Your task to perform on an android device: delete the emails in spam in the gmail app Image 0: 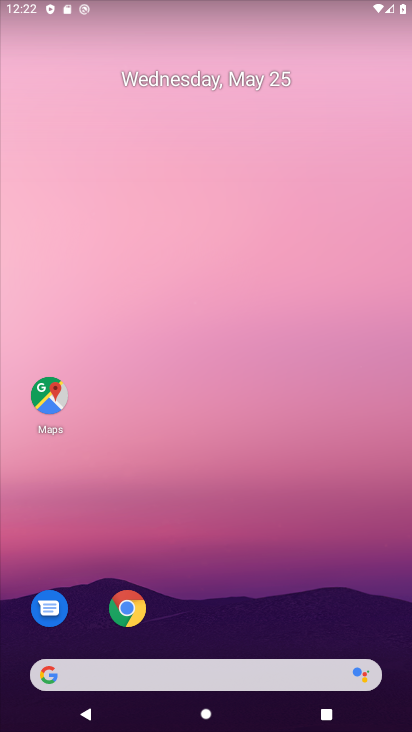
Step 0: drag from (239, 699) to (271, 49)
Your task to perform on an android device: delete the emails in spam in the gmail app Image 1: 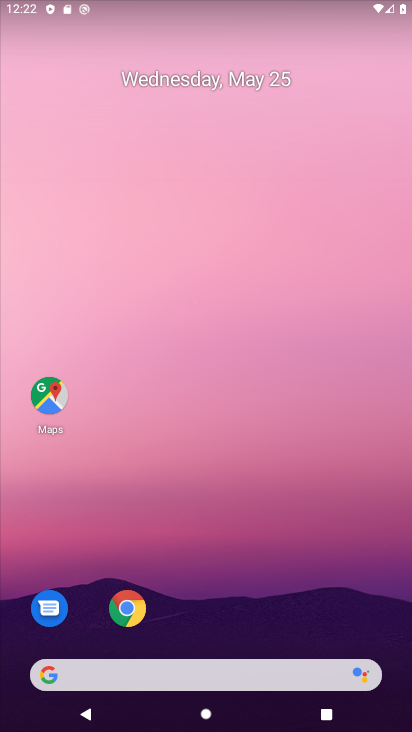
Step 1: drag from (264, 726) to (311, 90)
Your task to perform on an android device: delete the emails in spam in the gmail app Image 2: 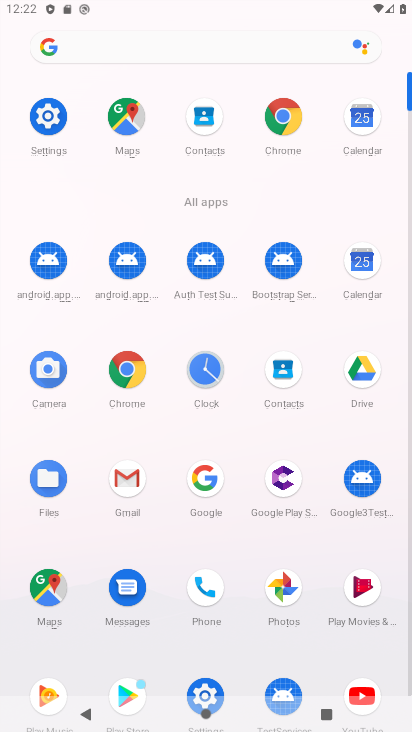
Step 2: click (121, 477)
Your task to perform on an android device: delete the emails in spam in the gmail app Image 3: 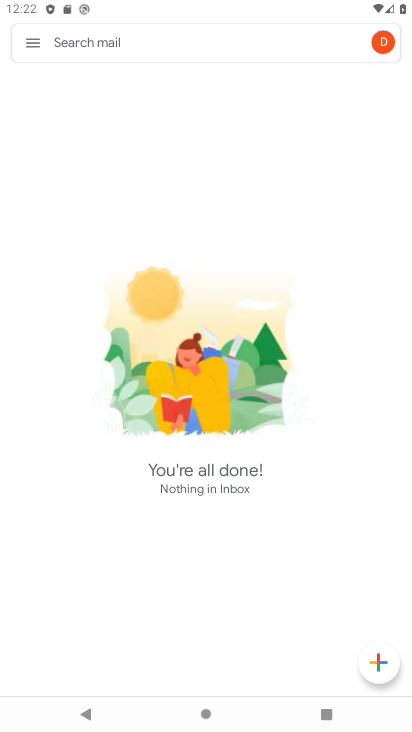
Step 3: click (33, 43)
Your task to perform on an android device: delete the emails in spam in the gmail app Image 4: 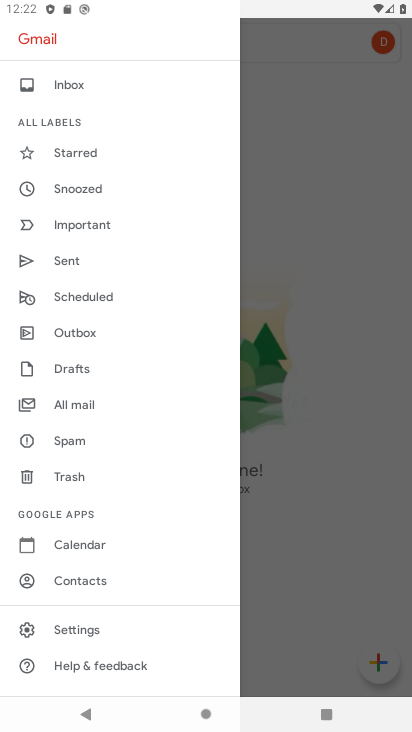
Step 4: click (79, 443)
Your task to perform on an android device: delete the emails in spam in the gmail app Image 5: 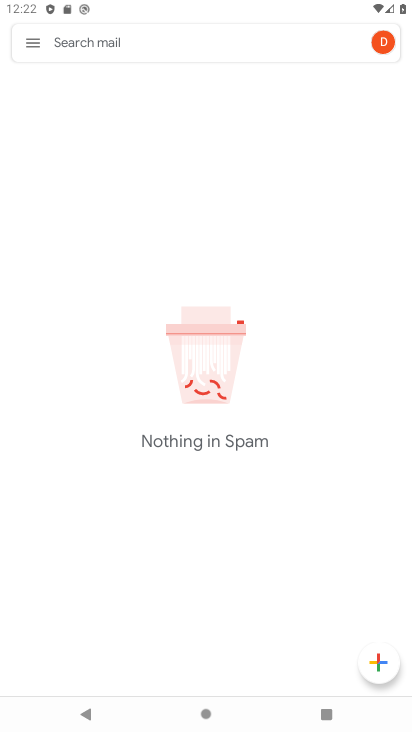
Step 5: task complete